Your task to perform on an android device: Go to Wikipedia Image 0: 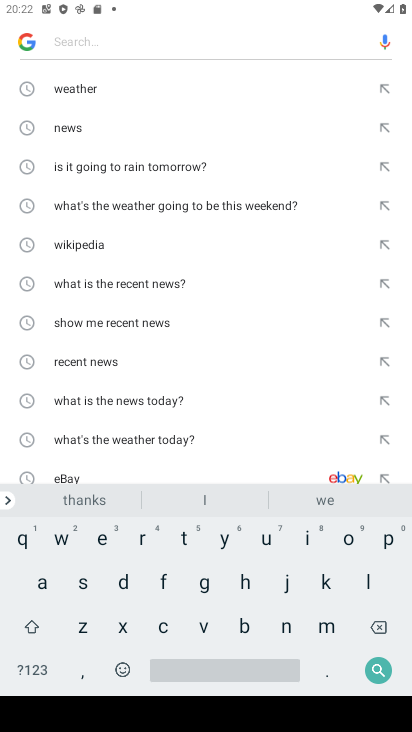
Step 0: press home button
Your task to perform on an android device: Go to Wikipedia Image 1: 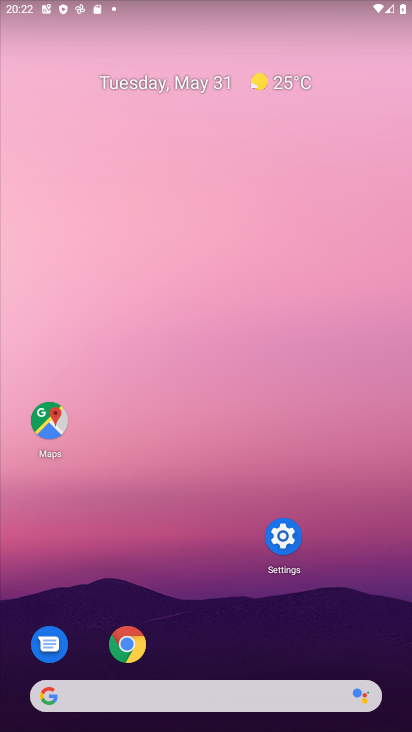
Step 1: drag from (203, 709) to (300, 203)
Your task to perform on an android device: Go to Wikipedia Image 2: 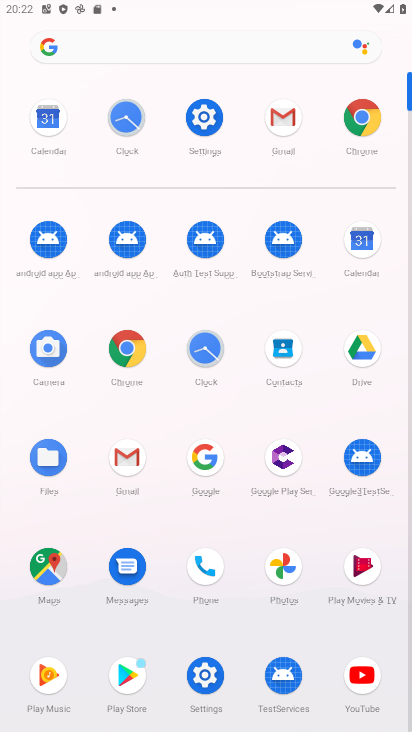
Step 2: click (369, 119)
Your task to perform on an android device: Go to Wikipedia Image 3: 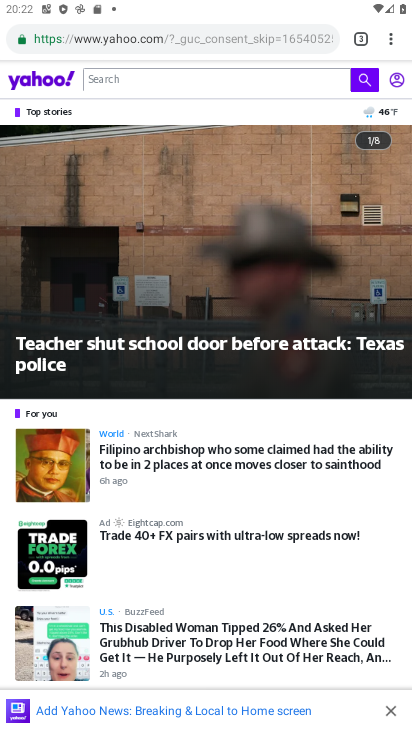
Step 3: click (390, 36)
Your task to perform on an android device: Go to Wikipedia Image 4: 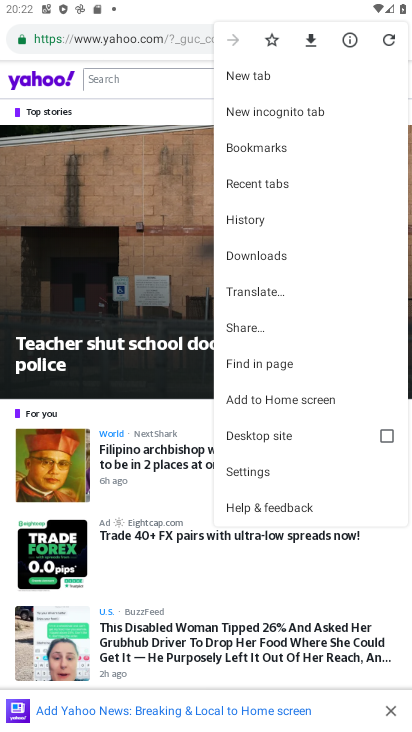
Step 4: click (272, 70)
Your task to perform on an android device: Go to Wikipedia Image 5: 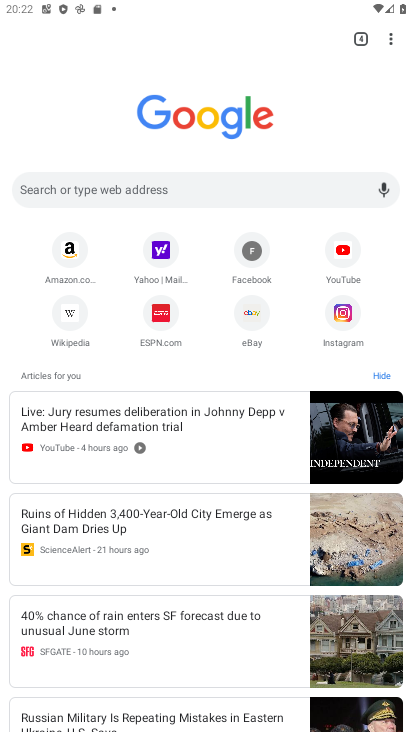
Step 5: click (58, 316)
Your task to perform on an android device: Go to Wikipedia Image 6: 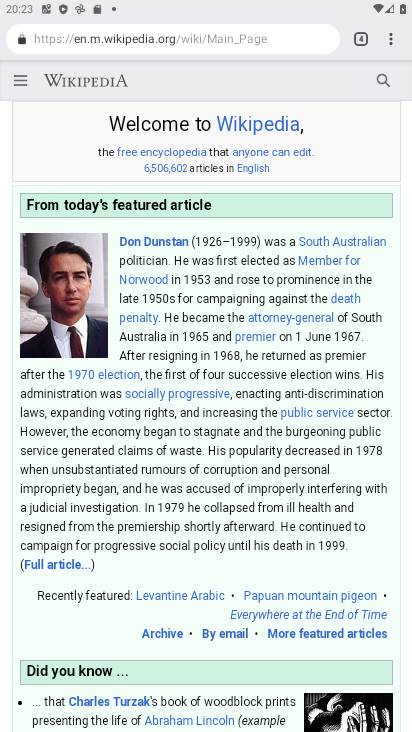
Step 6: task complete